Your task to perform on an android device: move an email to a new category in the gmail app Image 0: 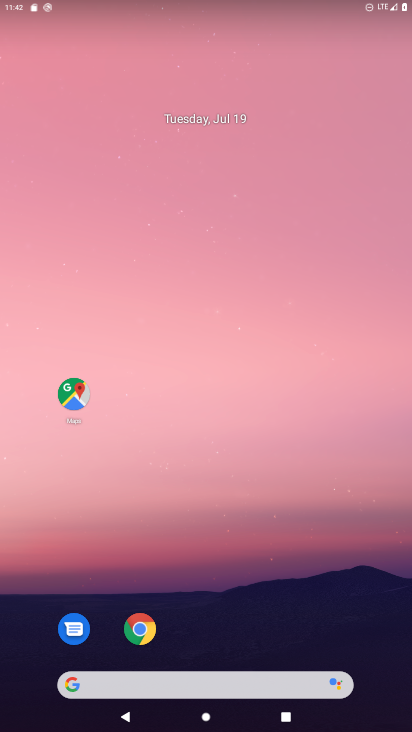
Step 0: drag from (209, 564) to (189, 139)
Your task to perform on an android device: move an email to a new category in the gmail app Image 1: 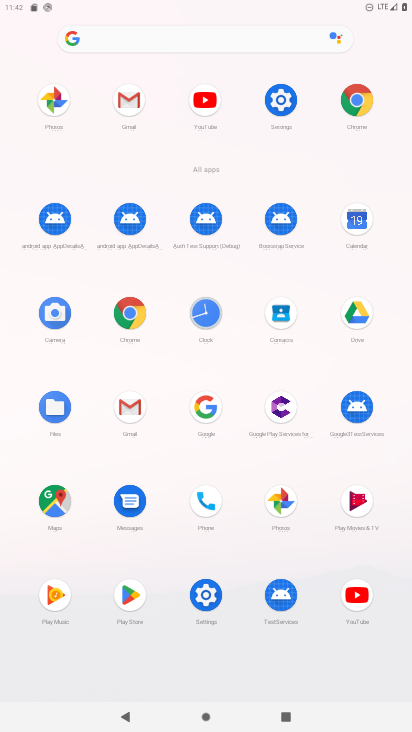
Step 1: click (137, 97)
Your task to perform on an android device: move an email to a new category in the gmail app Image 2: 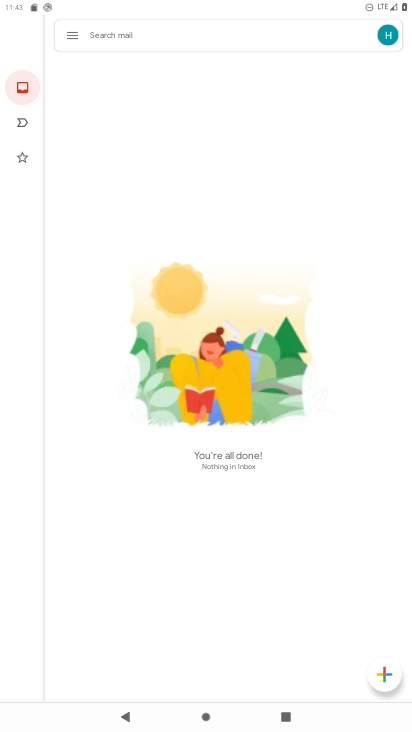
Step 2: click (68, 34)
Your task to perform on an android device: move an email to a new category in the gmail app Image 3: 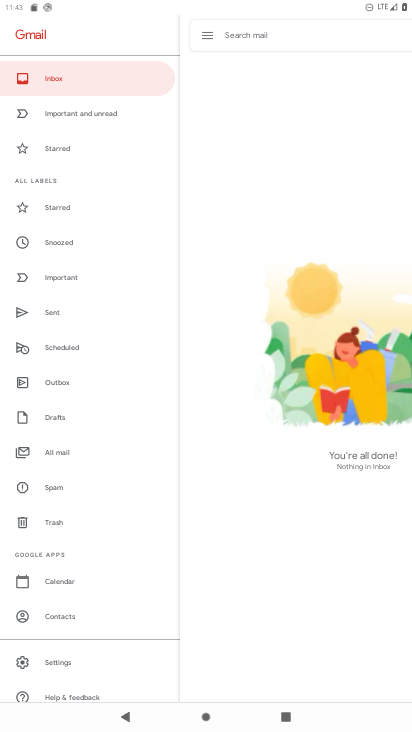
Step 3: click (58, 454)
Your task to perform on an android device: move an email to a new category in the gmail app Image 4: 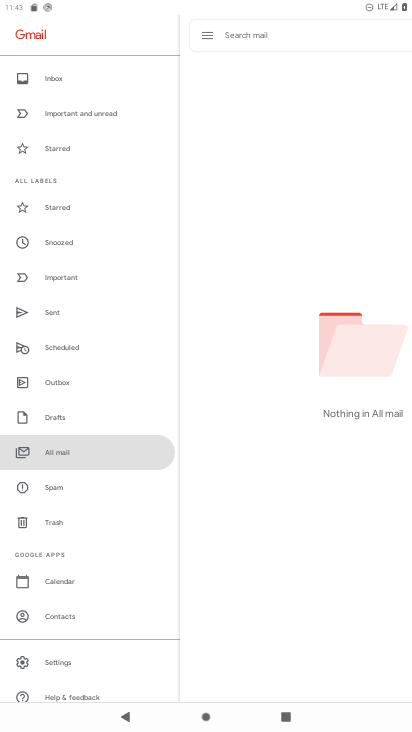
Step 4: task complete